Your task to perform on an android device: snooze an email in the gmail app Image 0: 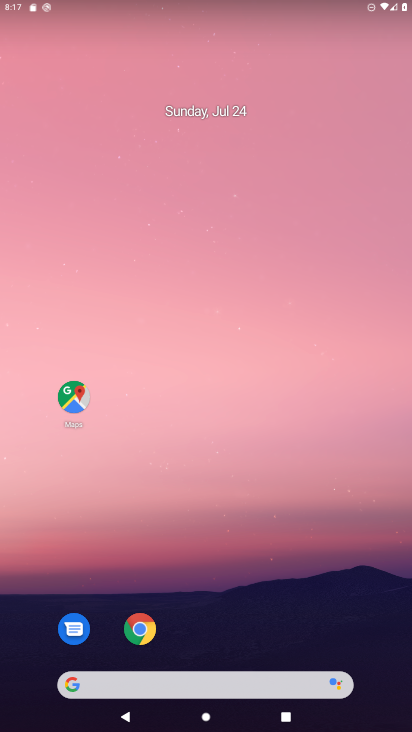
Step 0: drag from (395, 652) to (163, 29)
Your task to perform on an android device: snooze an email in the gmail app Image 1: 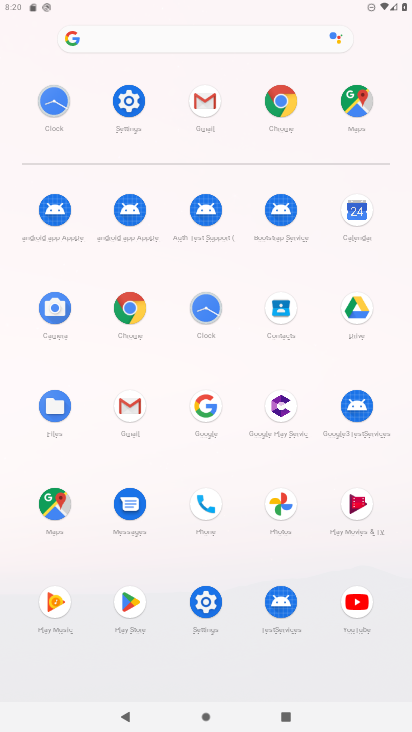
Step 1: click (119, 415)
Your task to perform on an android device: snooze an email in the gmail app Image 2: 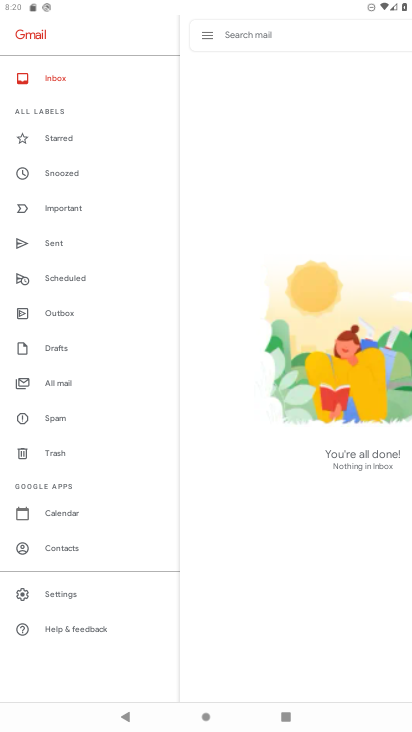
Step 2: click (63, 171)
Your task to perform on an android device: snooze an email in the gmail app Image 3: 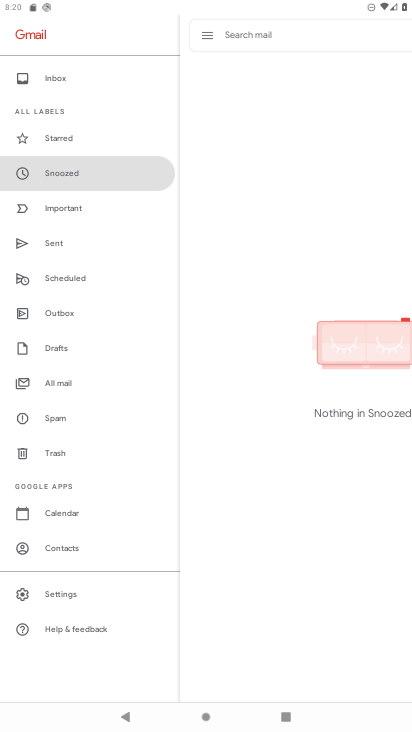
Step 3: task complete